Your task to perform on an android device: manage bookmarks in the chrome app Image 0: 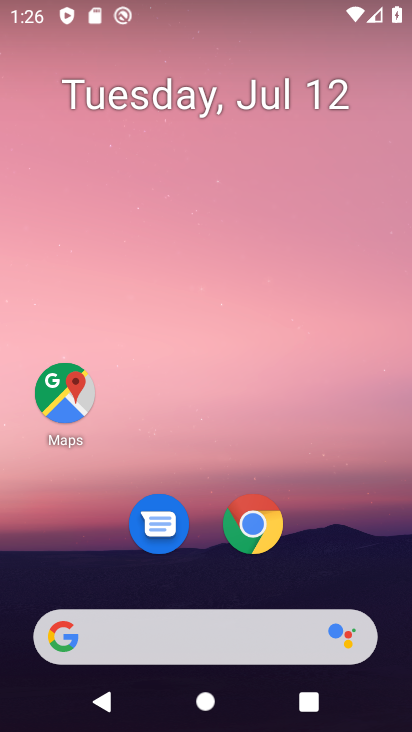
Step 0: click (265, 536)
Your task to perform on an android device: manage bookmarks in the chrome app Image 1: 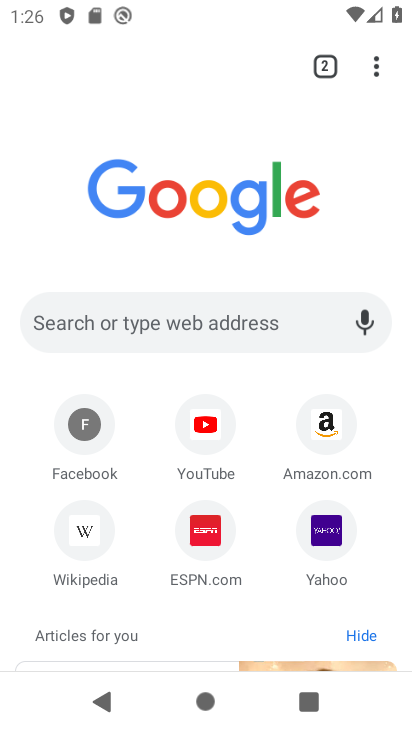
Step 1: click (373, 64)
Your task to perform on an android device: manage bookmarks in the chrome app Image 2: 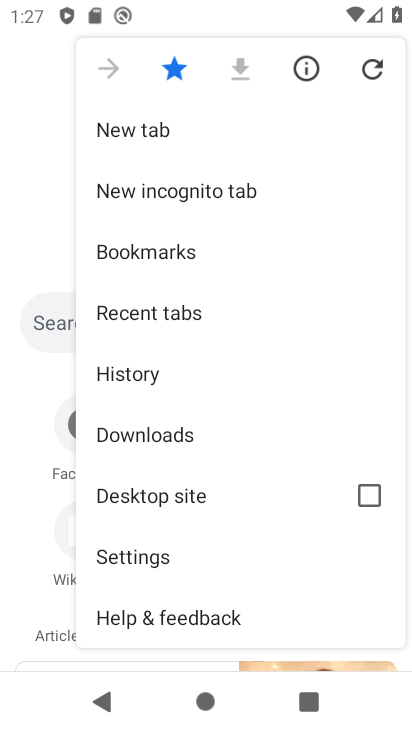
Step 2: click (184, 252)
Your task to perform on an android device: manage bookmarks in the chrome app Image 3: 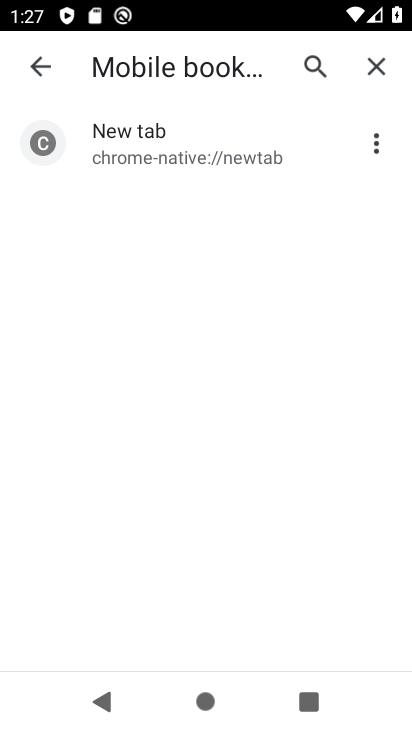
Step 3: click (374, 138)
Your task to perform on an android device: manage bookmarks in the chrome app Image 4: 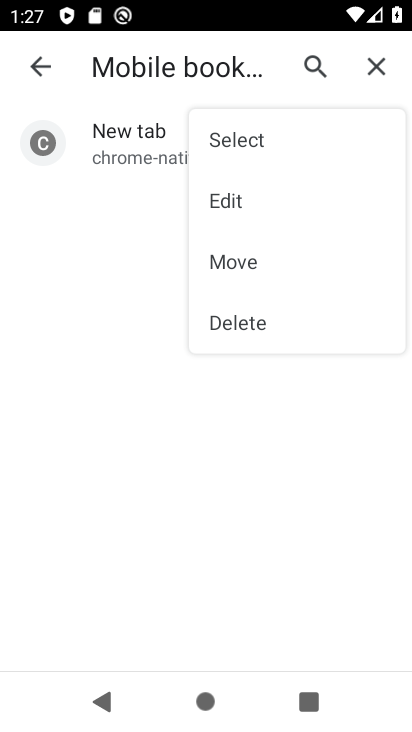
Step 4: click (258, 197)
Your task to perform on an android device: manage bookmarks in the chrome app Image 5: 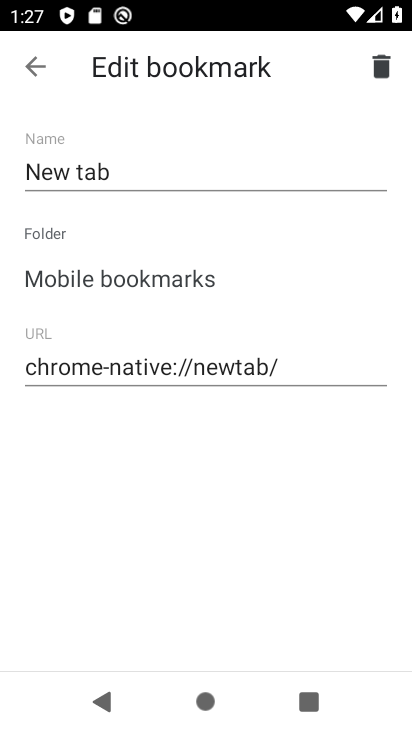
Step 5: click (38, 67)
Your task to perform on an android device: manage bookmarks in the chrome app Image 6: 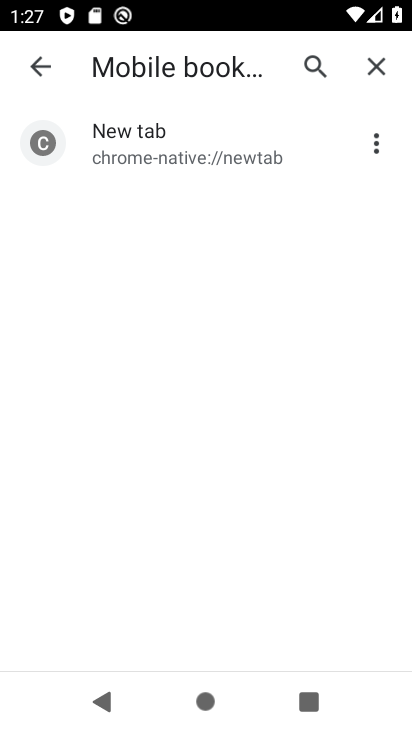
Step 6: task complete